Your task to perform on an android device: turn on data saver in the chrome app Image 0: 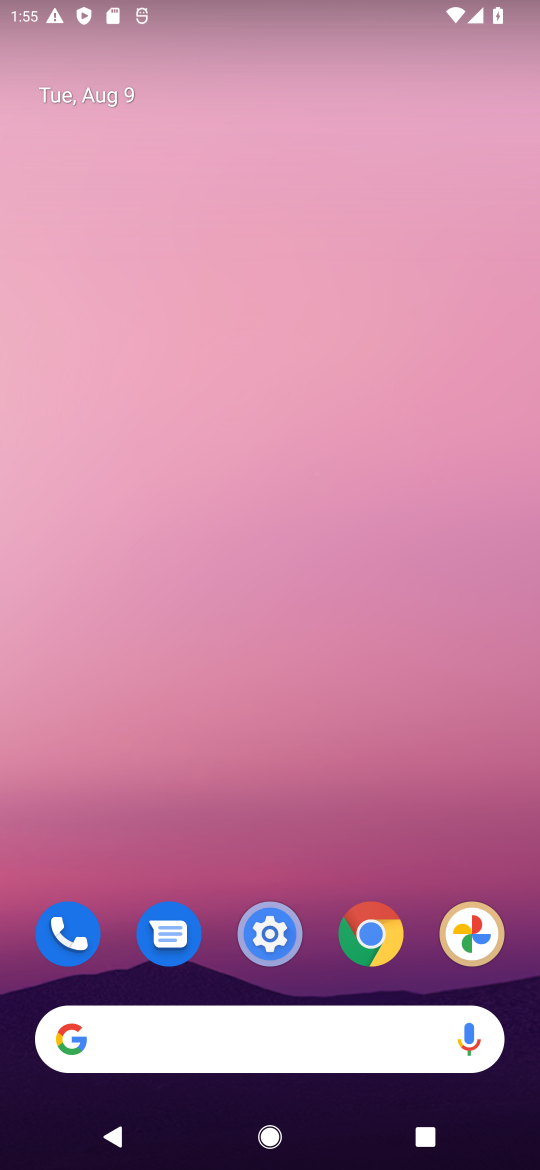
Step 0: click (363, 927)
Your task to perform on an android device: turn on data saver in the chrome app Image 1: 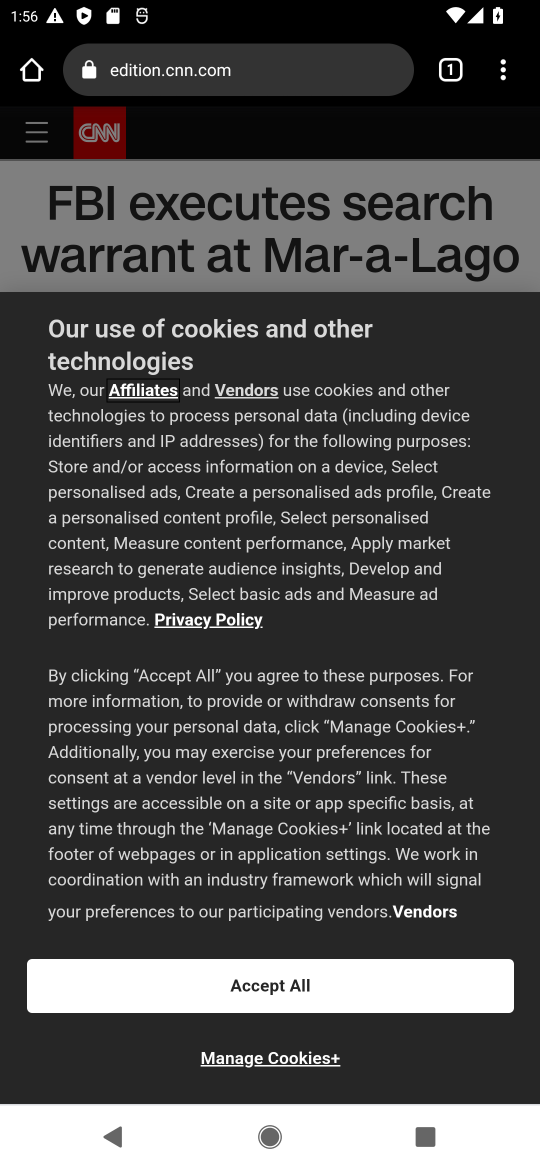
Step 1: click (502, 71)
Your task to perform on an android device: turn on data saver in the chrome app Image 2: 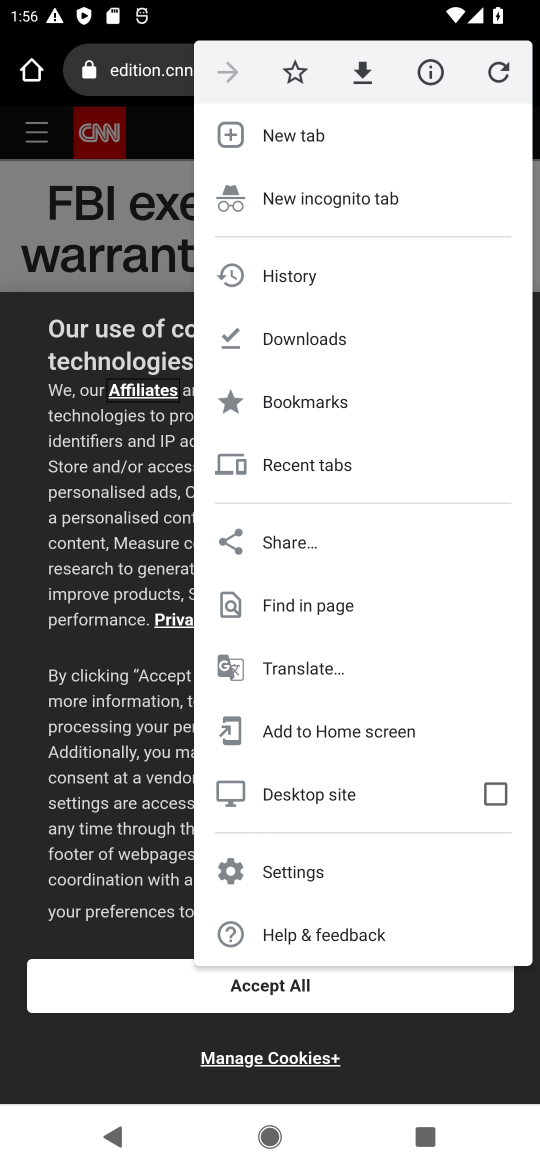
Step 2: click (348, 877)
Your task to perform on an android device: turn on data saver in the chrome app Image 3: 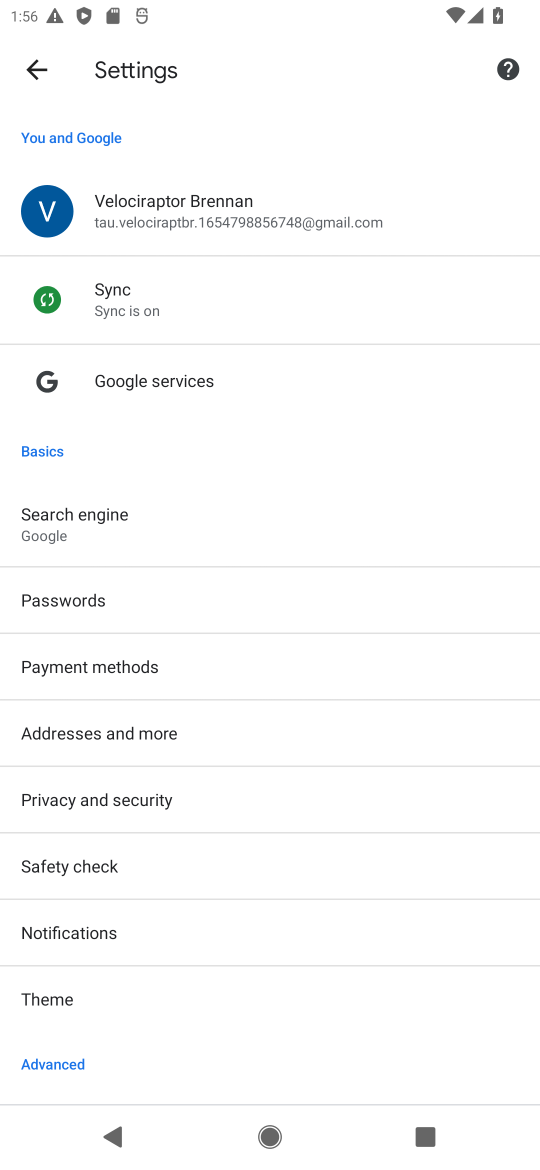
Step 3: click (188, 939)
Your task to perform on an android device: turn on data saver in the chrome app Image 4: 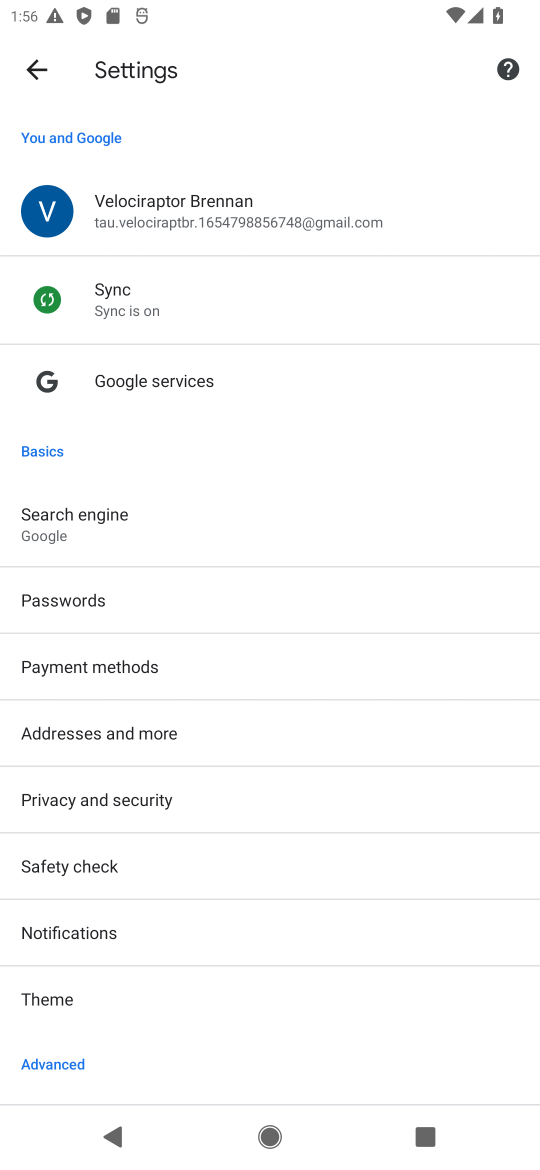
Step 4: task complete